Your task to perform on an android device: turn on bluetooth scan Image 0: 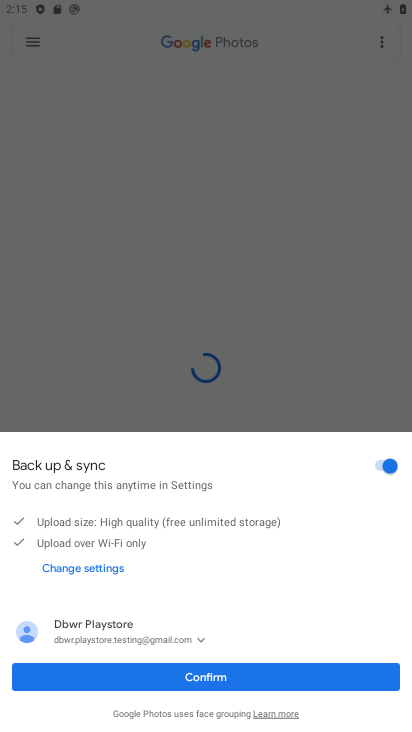
Step 0: press home button
Your task to perform on an android device: turn on bluetooth scan Image 1: 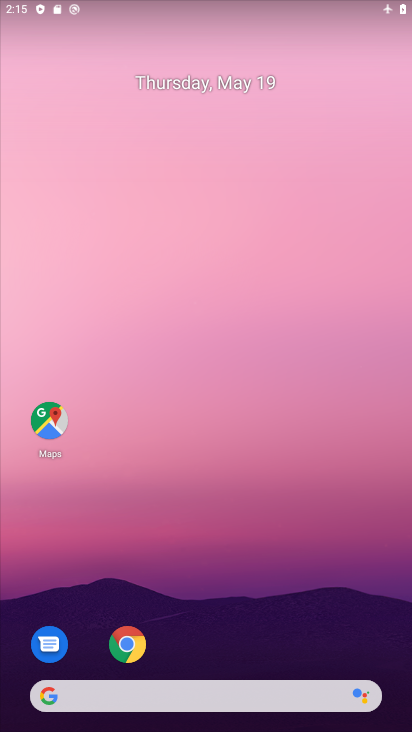
Step 1: drag from (224, 564) to (297, 171)
Your task to perform on an android device: turn on bluetooth scan Image 2: 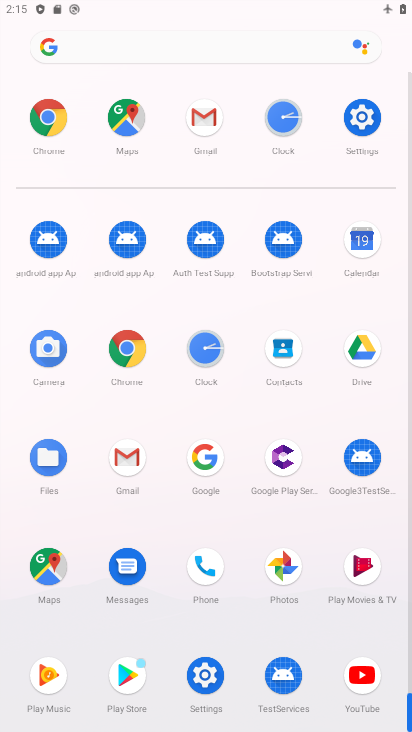
Step 2: click (357, 113)
Your task to perform on an android device: turn on bluetooth scan Image 3: 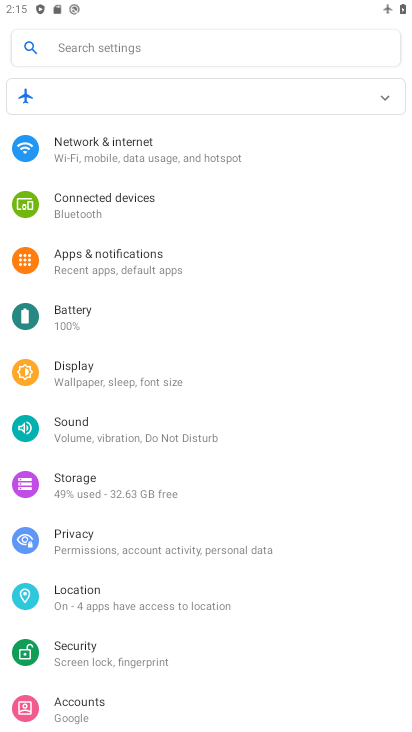
Step 3: click (146, 48)
Your task to perform on an android device: turn on bluetooth scan Image 4: 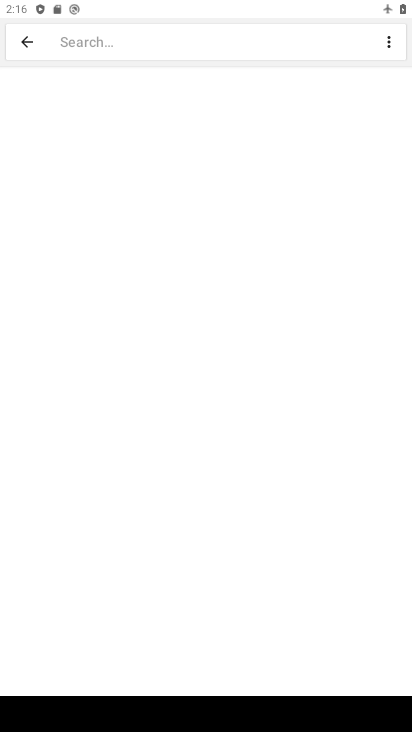
Step 4: click (212, 38)
Your task to perform on an android device: turn on bluetooth scan Image 5: 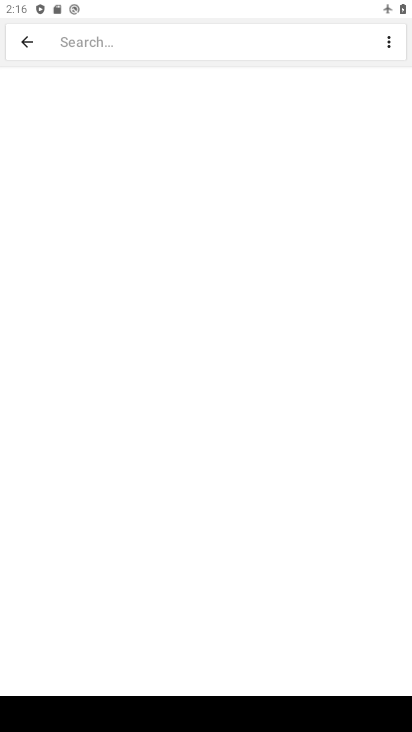
Step 5: click (154, 24)
Your task to perform on an android device: turn on bluetooth scan Image 6: 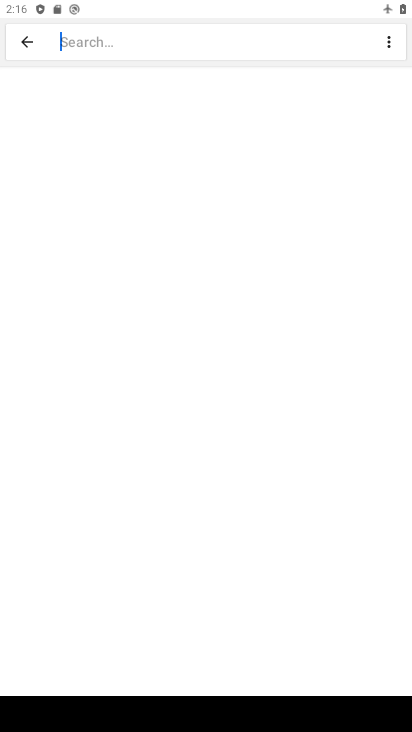
Step 6: type " bluetooth scan"
Your task to perform on an android device: turn on bluetooth scan Image 7: 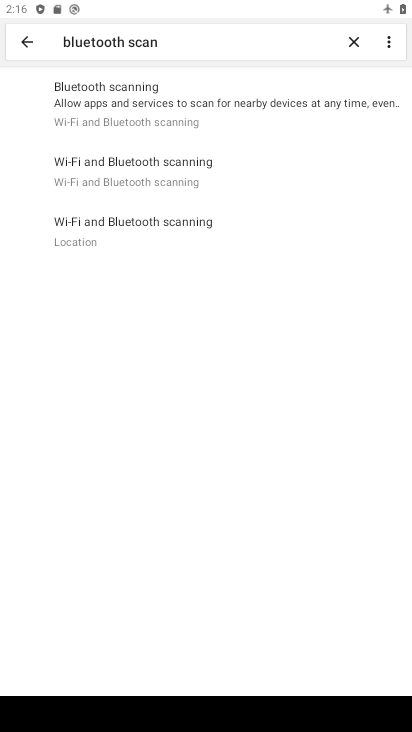
Step 7: click (149, 96)
Your task to perform on an android device: turn on bluetooth scan Image 8: 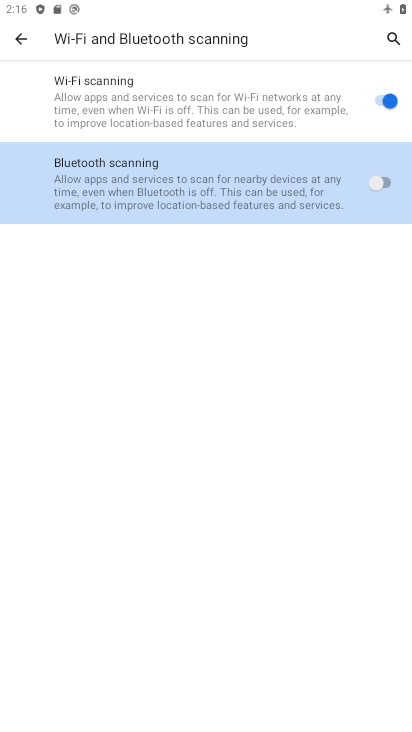
Step 8: click (381, 176)
Your task to perform on an android device: turn on bluetooth scan Image 9: 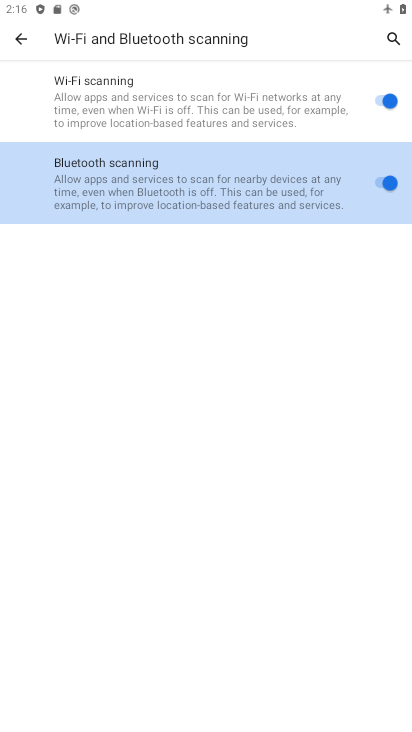
Step 9: task complete